Your task to perform on an android device: What is the news today? Image 0: 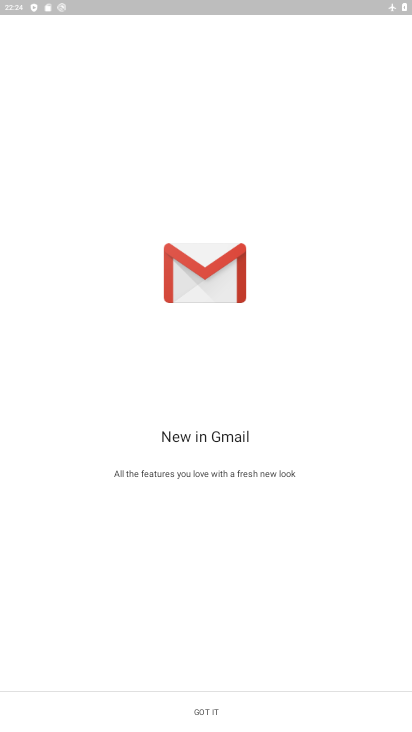
Step 0: press home button
Your task to perform on an android device: What is the news today? Image 1: 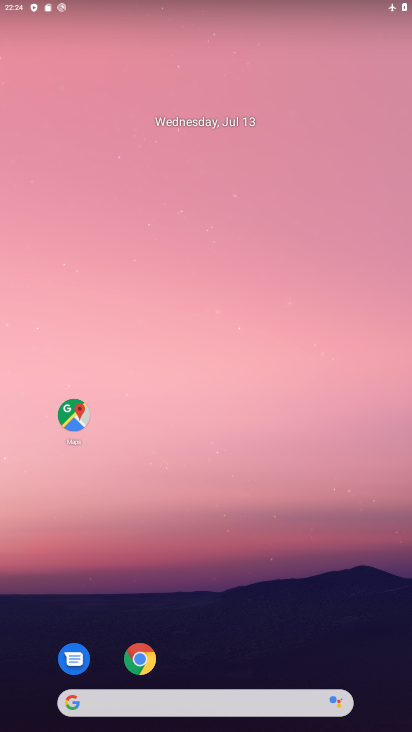
Step 1: click (372, 646)
Your task to perform on an android device: What is the news today? Image 2: 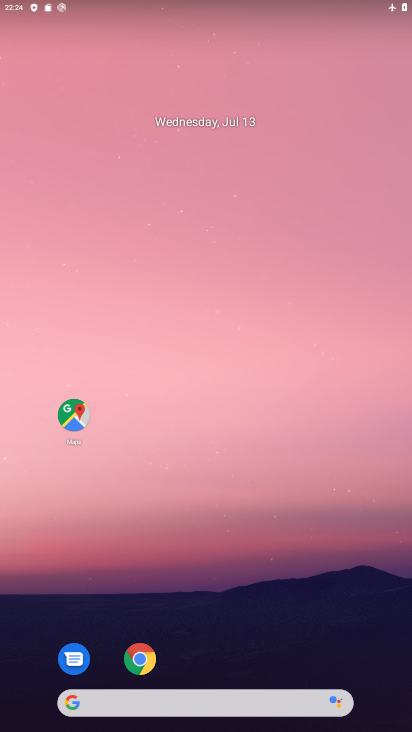
Step 2: task complete